Your task to perform on an android device: make emails show in primary in the gmail app Image 0: 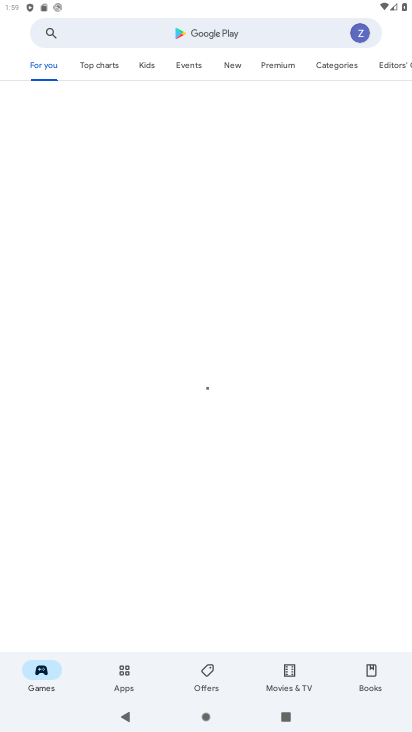
Step 0: press home button
Your task to perform on an android device: make emails show in primary in the gmail app Image 1: 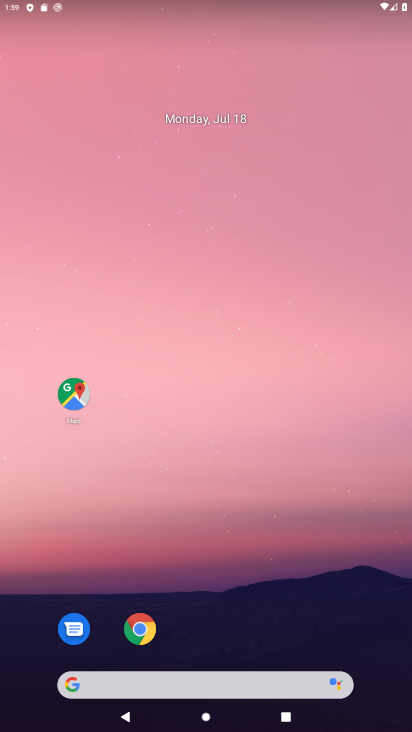
Step 1: drag from (189, 623) to (193, 178)
Your task to perform on an android device: make emails show in primary in the gmail app Image 2: 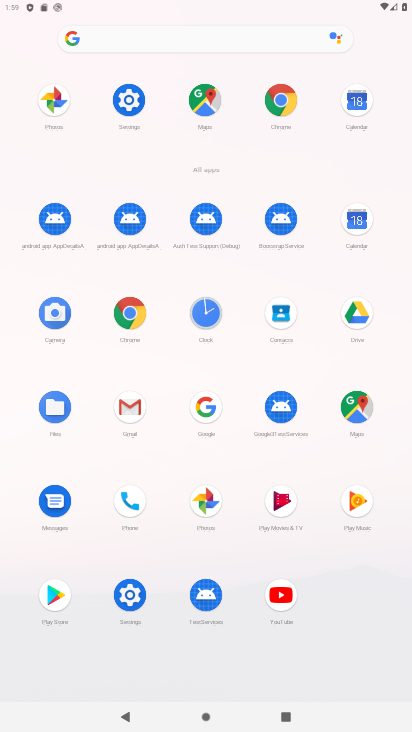
Step 2: click (122, 412)
Your task to perform on an android device: make emails show in primary in the gmail app Image 3: 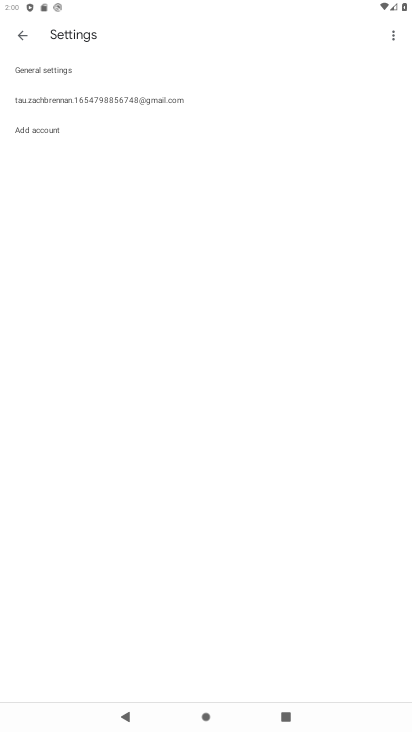
Step 3: click (54, 104)
Your task to perform on an android device: make emails show in primary in the gmail app Image 4: 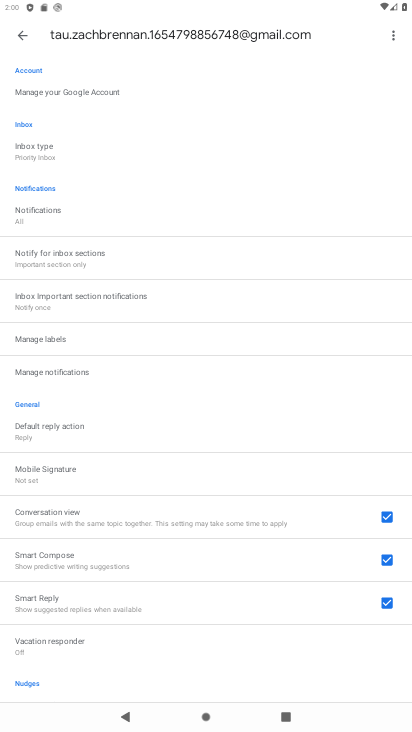
Step 4: click (68, 162)
Your task to perform on an android device: make emails show in primary in the gmail app Image 5: 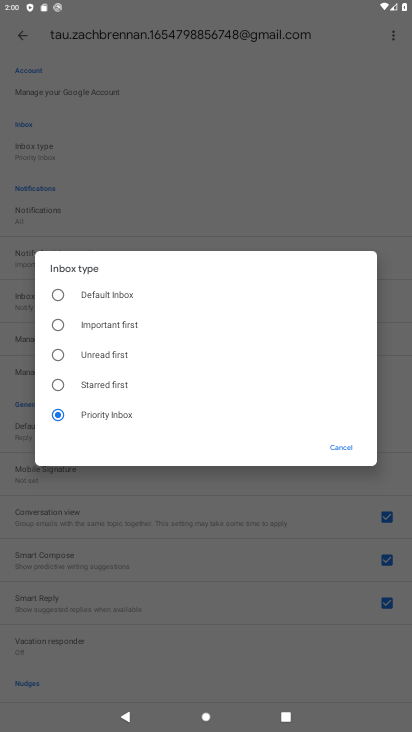
Step 5: click (113, 299)
Your task to perform on an android device: make emails show in primary in the gmail app Image 6: 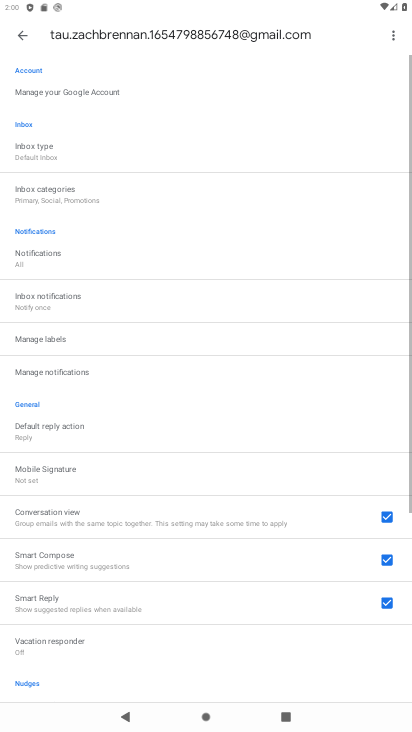
Step 6: task complete